Your task to perform on an android device: turn off sleep mode Image 0: 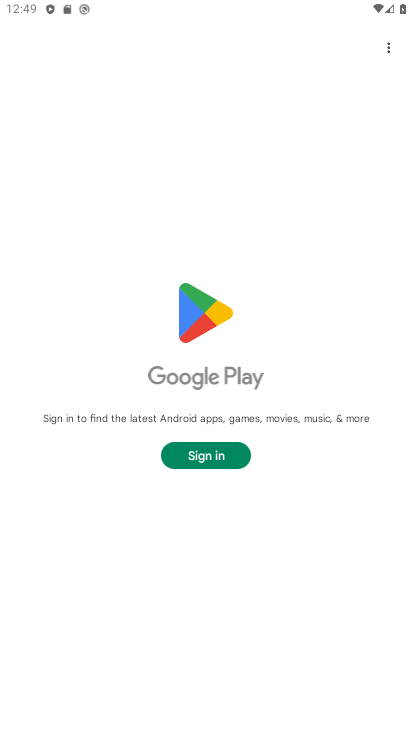
Step 0: press back button
Your task to perform on an android device: turn off sleep mode Image 1: 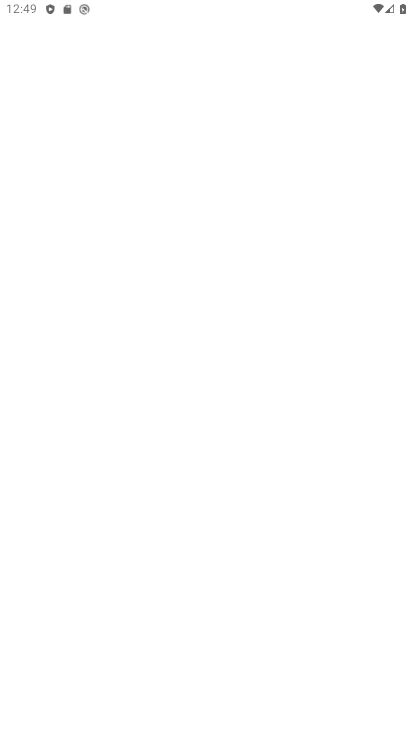
Step 1: press back button
Your task to perform on an android device: turn off sleep mode Image 2: 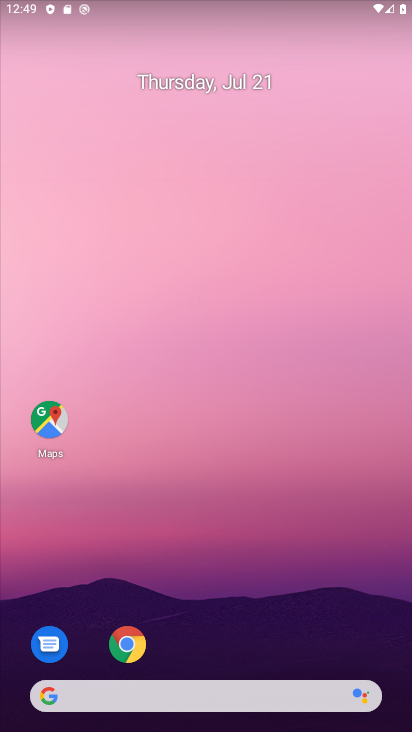
Step 2: press back button
Your task to perform on an android device: turn off sleep mode Image 3: 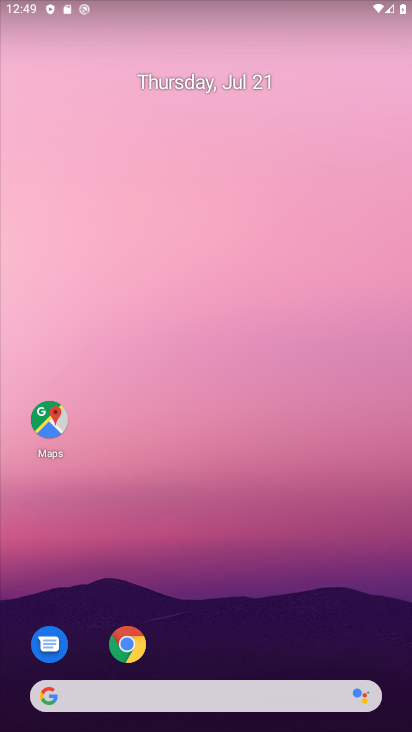
Step 3: drag from (220, 374) to (194, 116)
Your task to perform on an android device: turn off sleep mode Image 4: 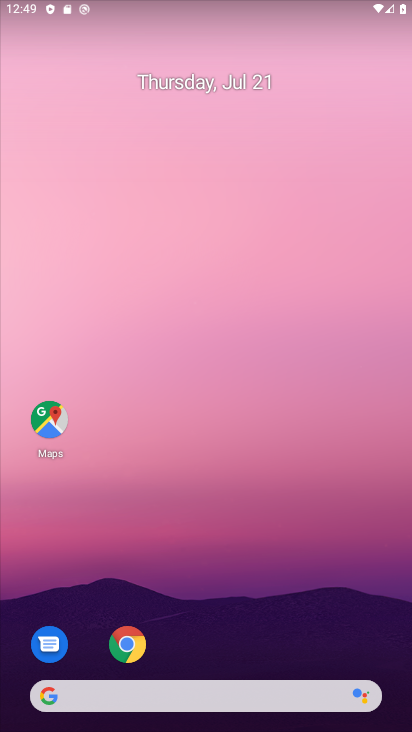
Step 4: drag from (205, 527) to (189, 71)
Your task to perform on an android device: turn off sleep mode Image 5: 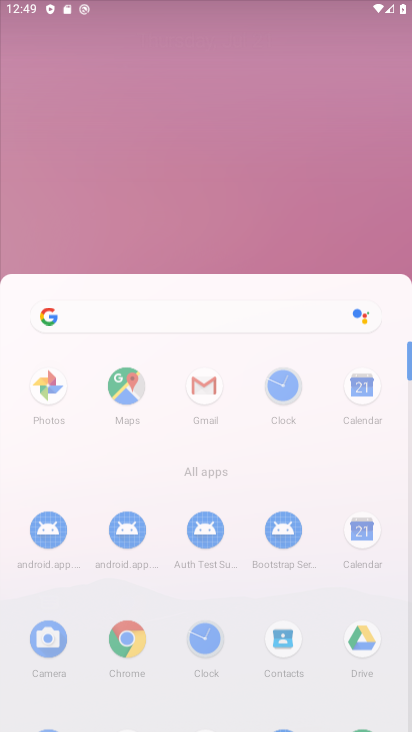
Step 5: drag from (253, 469) to (191, 60)
Your task to perform on an android device: turn off sleep mode Image 6: 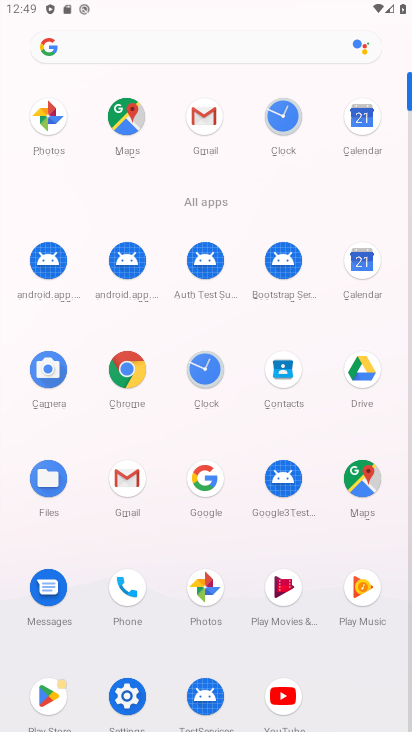
Step 6: click (129, 689)
Your task to perform on an android device: turn off sleep mode Image 7: 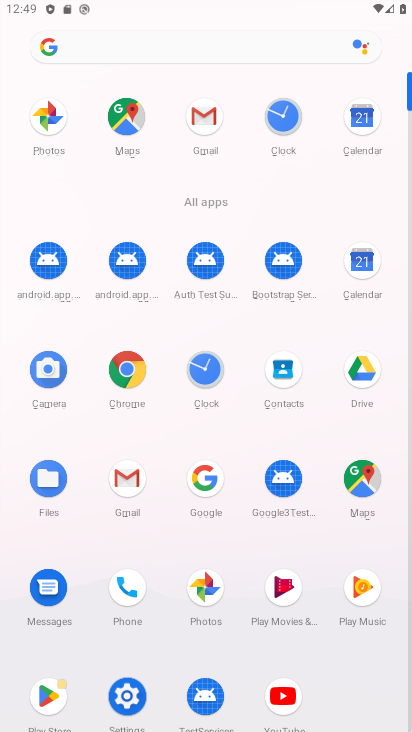
Step 7: click (129, 689)
Your task to perform on an android device: turn off sleep mode Image 8: 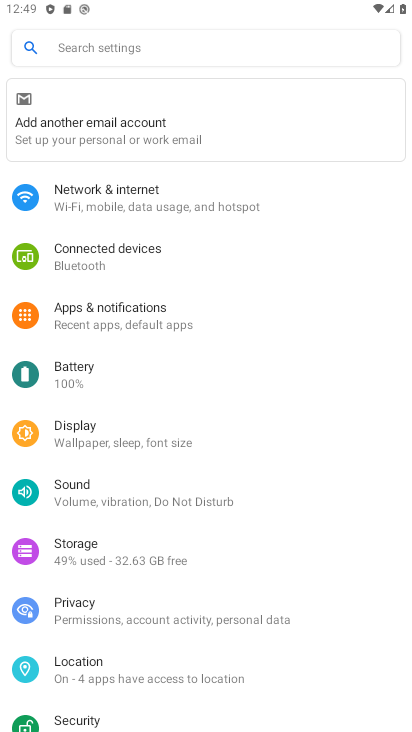
Step 8: click (71, 438)
Your task to perform on an android device: turn off sleep mode Image 9: 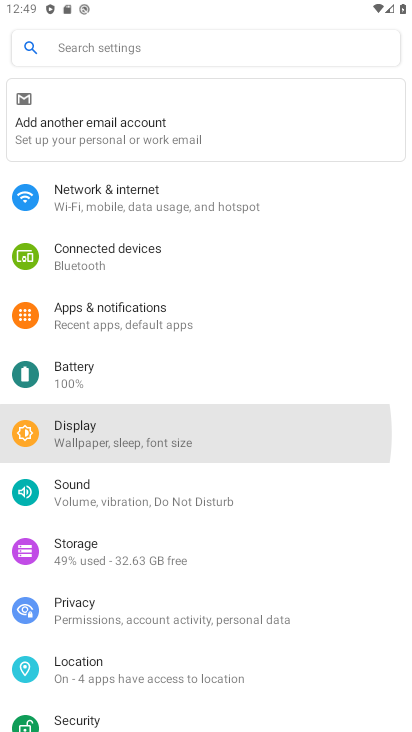
Step 9: click (71, 438)
Your task to perform on an android device: turn off sleep mode Image 10: 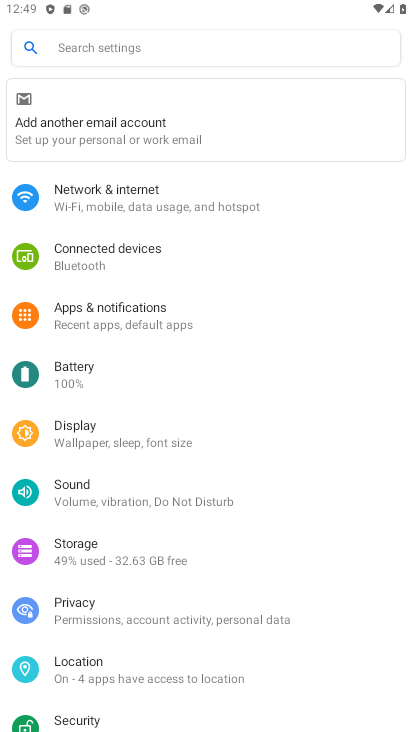
Step 10: click (71, 438)
Your task to perform on an android device: turn off sleep mode Image 11: 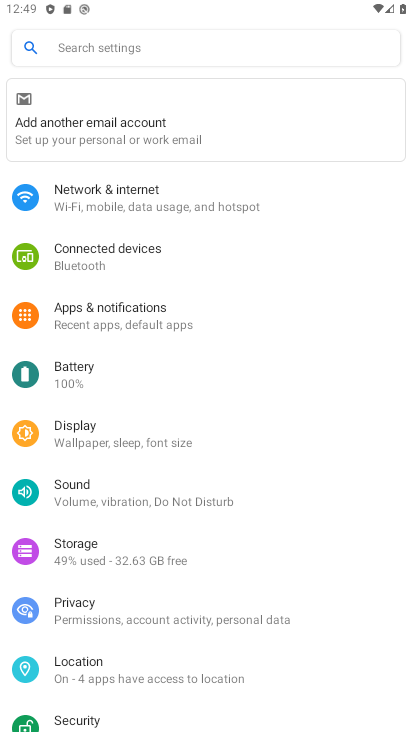
Step 11: click (71, 438)
Your task to perform on an android device: turn off sleep mode Image 12: 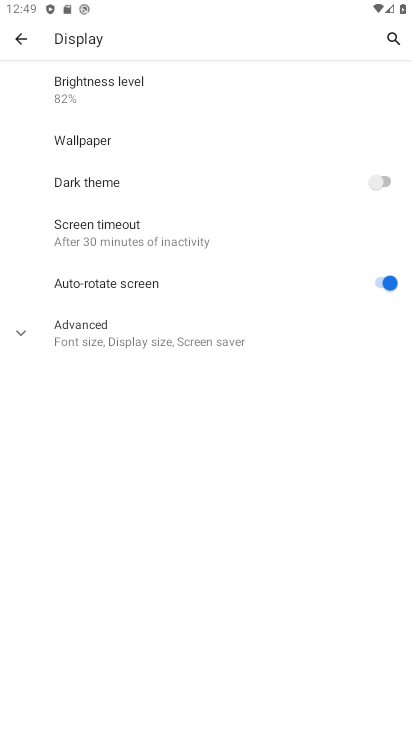
Step 12: click (73, 437)
Your task to perform on an android device: turn off sleep mode Image 13: 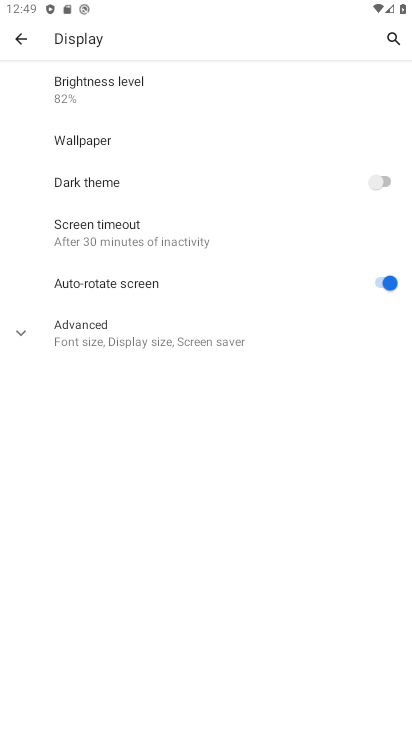
Step 13: click (109, 226)
Your task to perform on an android device: turn off sleep mode Image 14: 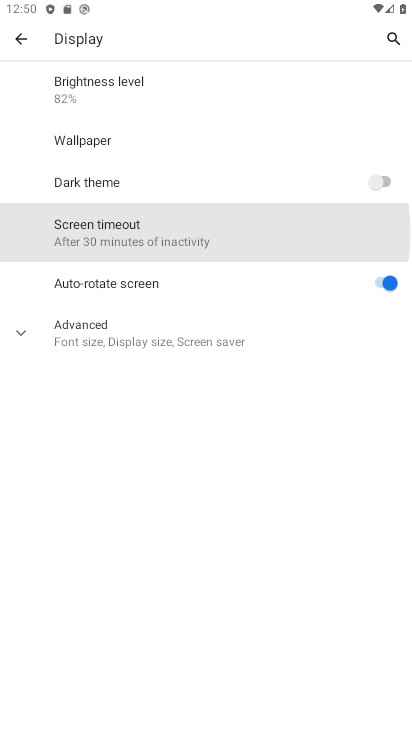
Step 14: click (112, 232)
Your task to perform on an android device: turn off sleep mode Image 15: 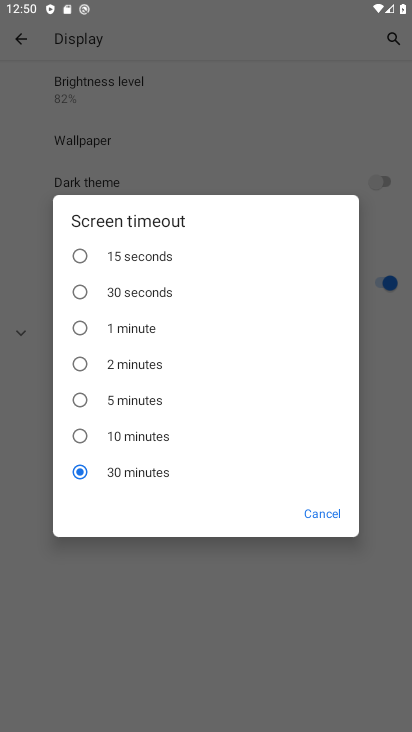
Step 15: task complete